Your task to perform on an android device: turn on notifications settings in the gmail app Image 0: 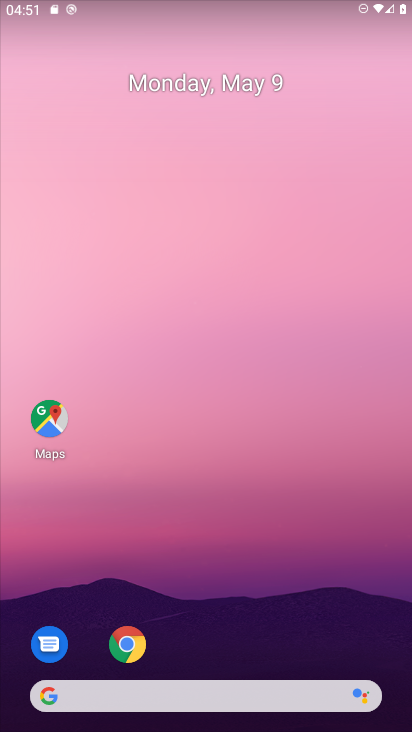
Step 0: drag from (206, 486) to (255, 32)
Your task to perform on an android device: turn on notifications settings in the gmail app Image 1: 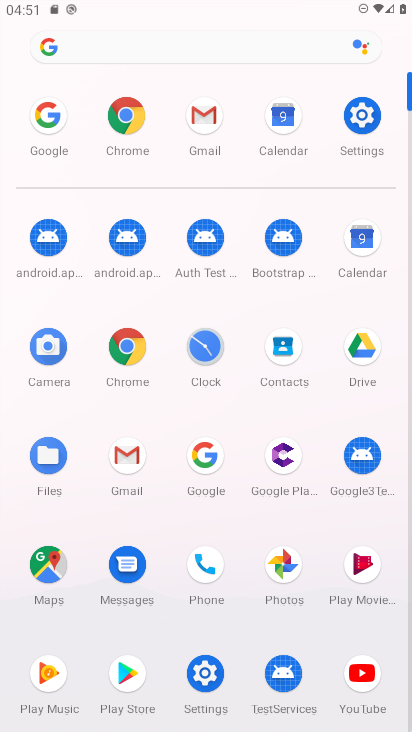
Step 1: click (200, 117)
Your task to perform on an android device: turn on notifications settings in the gmail app Image 2: 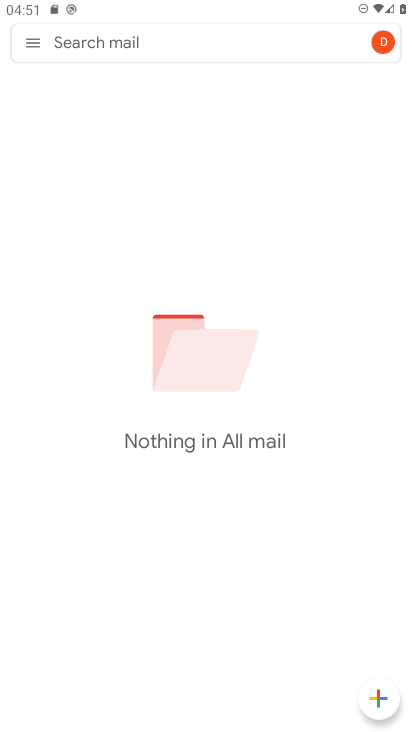
Step 2: click (32, 41)
Your task to perform on an android device: turn on notifications settings in the gmail app Image 3: 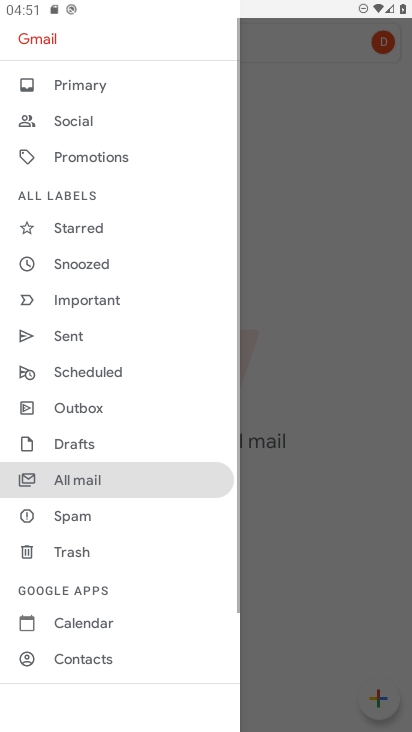
Step 3: drag from (113, 625) to (155, 396)
Your task to perform on an android device: turn on notifications settings in the gmail app Image 4: 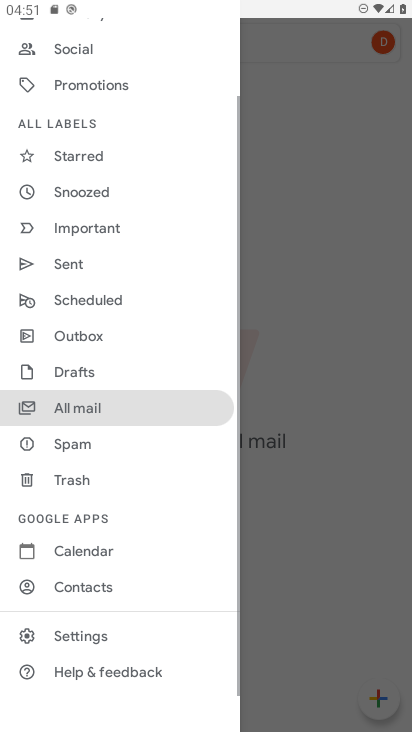
Step 4: click (81, 632)
Your task to perform on an android device: turn on notifications settings in the gmail app Image 5: 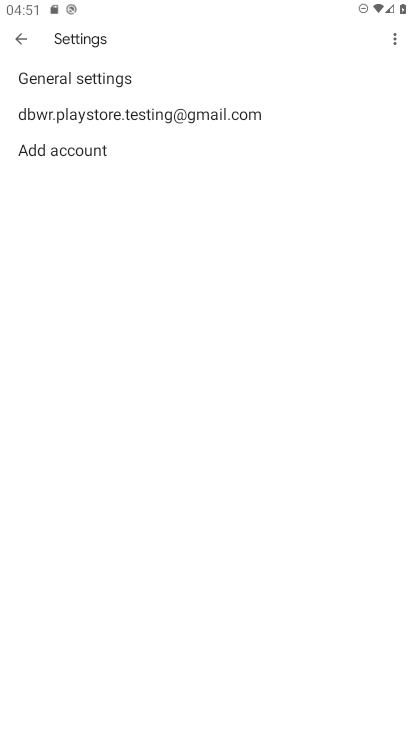
Step 5: click (84, 110)
Your task to perform on an android device: turn on notifications settings in the gmail app Image 6: 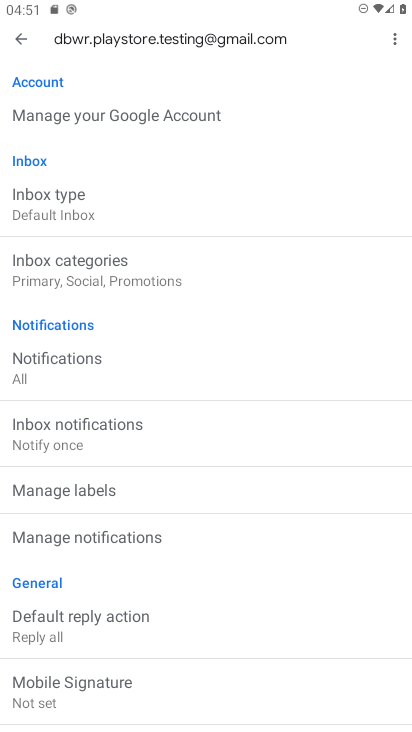
Step 6: click (100, 537)
Your task to perform on an android device: turn on notifications settings in the gmail app Image 7: 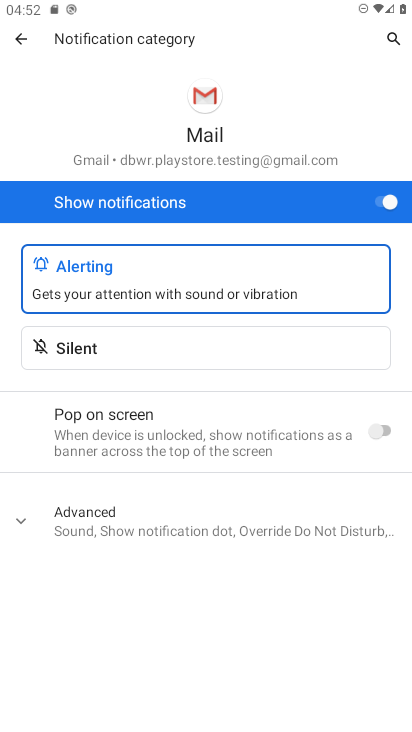
Step 7: task complete